Your task to perform on an android device: allow notifications from all sites in the chrome app Image 0: 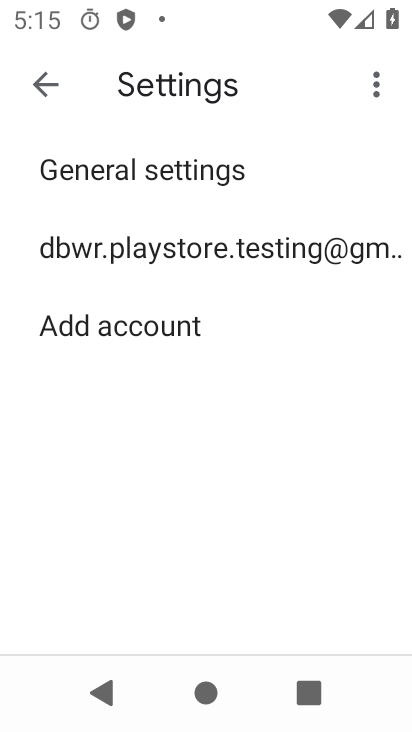
Step 0: press home button
Your task to perform on an android device: allow notifications from all sites in the chrome app Image 1: 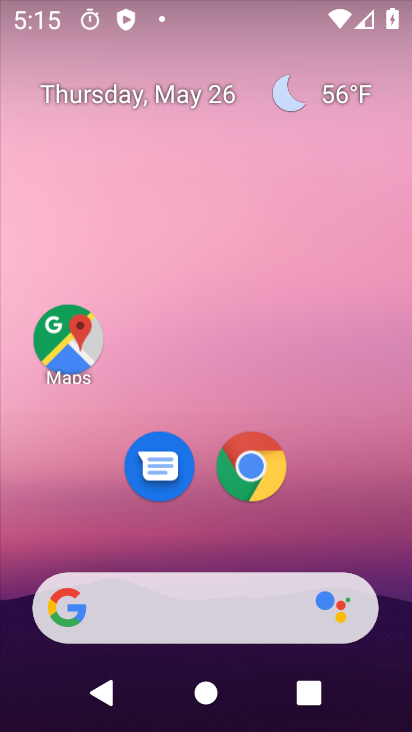
Step 1: drag from (310, 510) to (313, 85)
Your task to perform on an android device: allow notifications from all sites in the chrome app Image 2: 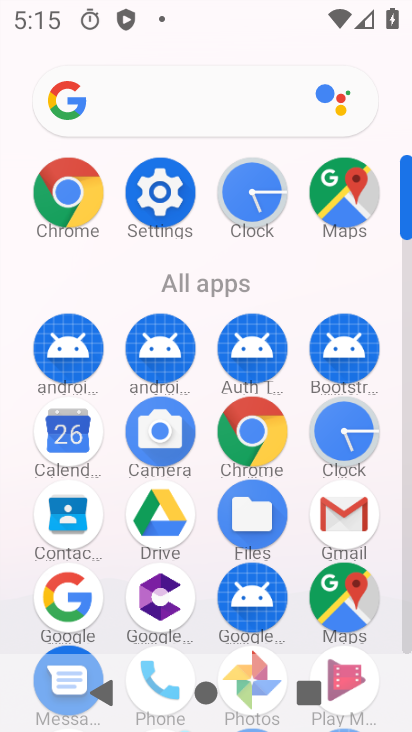
Step 2: click (248, 420)
Your task to perform on an android device: allow notifications from all sites in the chrome app Image 3: 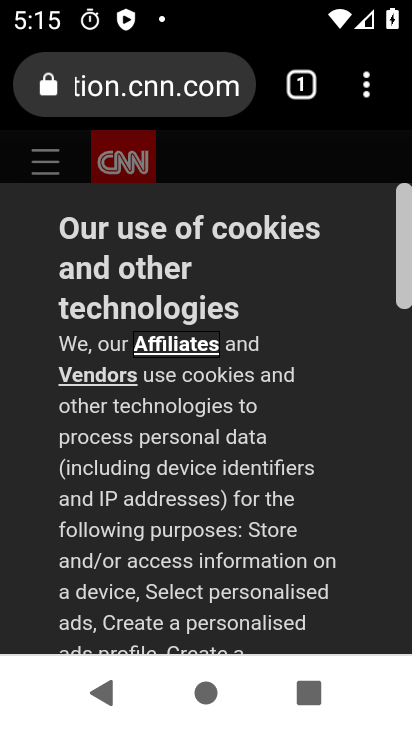
Step 3: drag from (366, 97) to (119, 524)
Your task to perform on an android device: allow notifications from all sites in the chrome app Image 4: 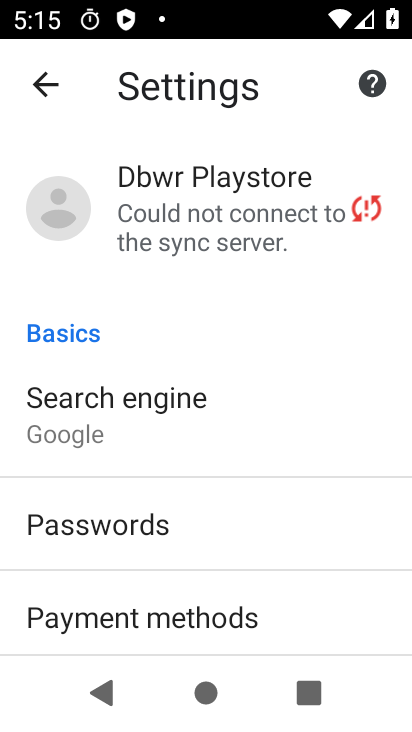
Step 4: drag from (305, 545) to (297, 252)
Your task to perform on an android device: allow notifications from all sites in the chrome app Image 5: 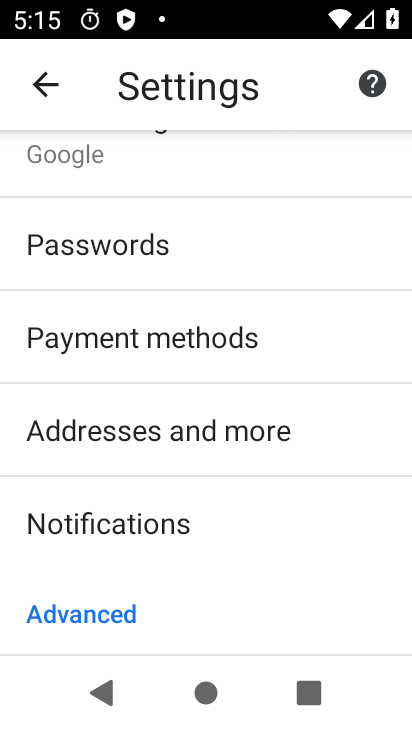
Step 5: drag from (280, 565) to (292, 266)
Your task to perform on an android device: allow notifications from all sites in the chrome app Image 6: 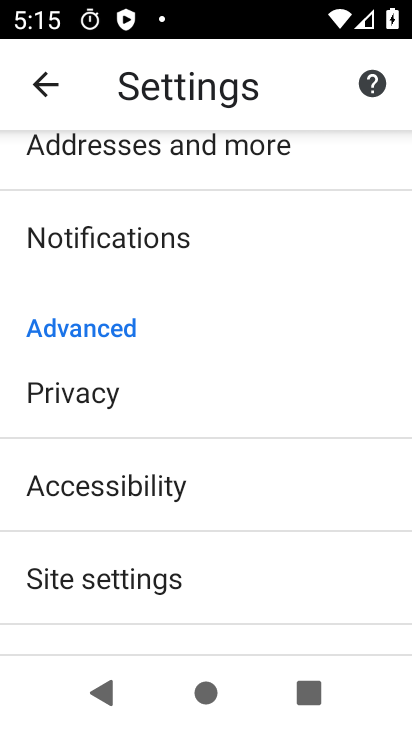
Step 6: click (126, 572)
Your task to perform on an android device: allow notifications from all sites in the chrome app Image 7: 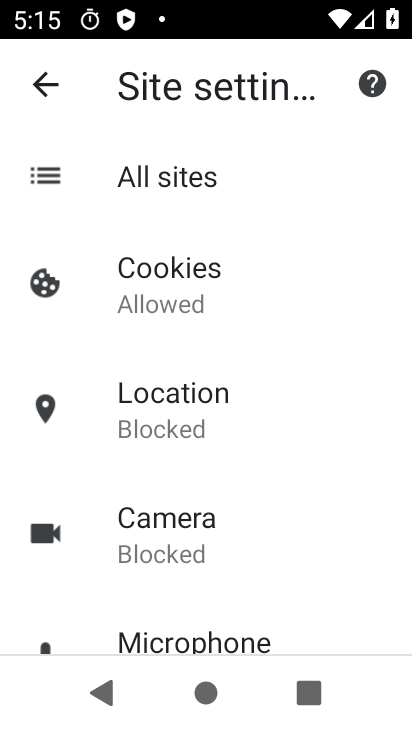
Step 7: click (175, 169)
Your task to perform on an android device: allow notifications from all sites in the chrome app Image 8: 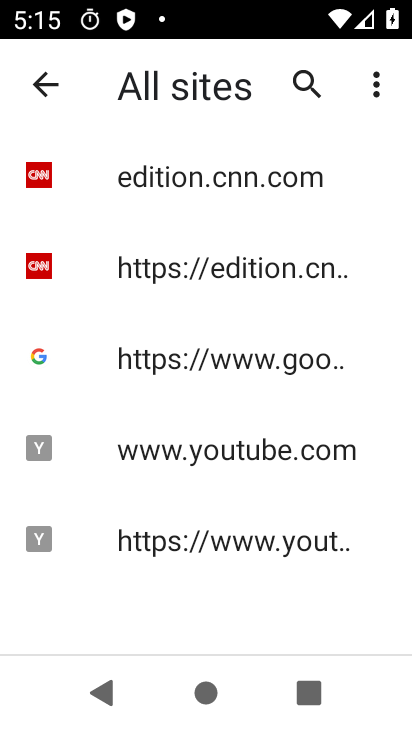
Step 8: click (269, 174)
Your task to perform on an android device: allow notifications from all sites in the chrome app Image 9: 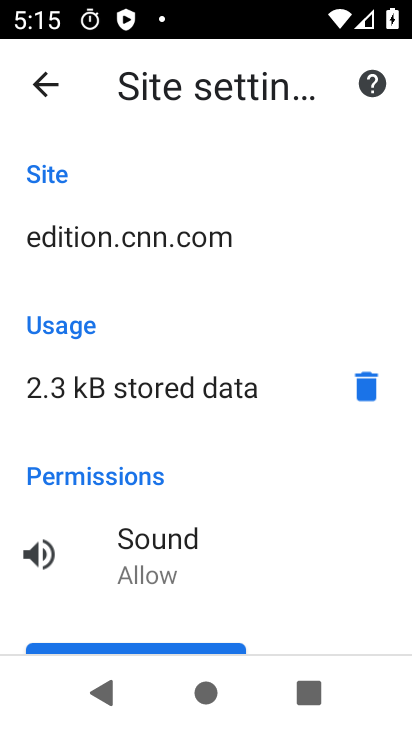
Step 9: drag from (261, 502) to (300, 274)
Your task to perform on an android device: allow notifications from all sites in the chrome app Image 10: 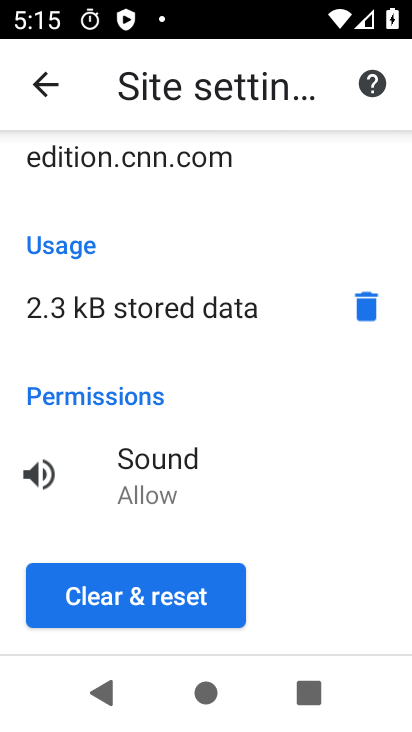
Step 10: click (44, 78)
Your task to perform on an android device: allow notifications from all sites in the chrome app Image 11: 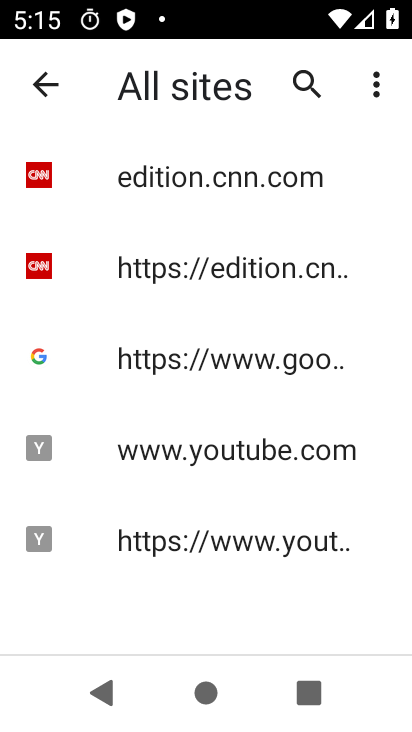
Step 11: click (242, 361)
Your task to perform on an android device: allow notifications from all sites in the chrome app Image 12: 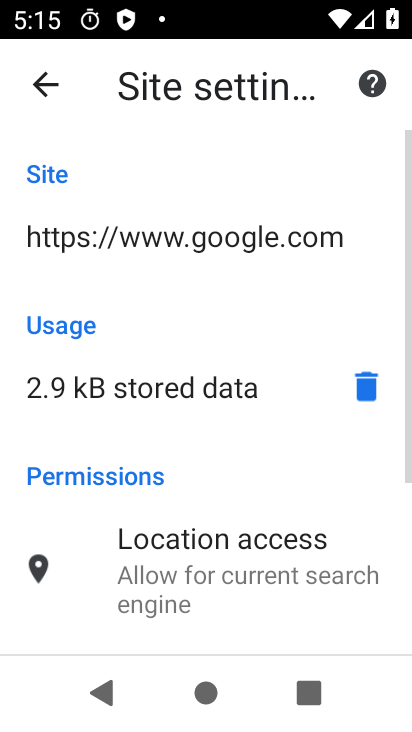
Step 12: drag from (283, 476) to (271, 213)
Your task to perform on an android device: allow notifications from all sites in the chrome app Image 13: 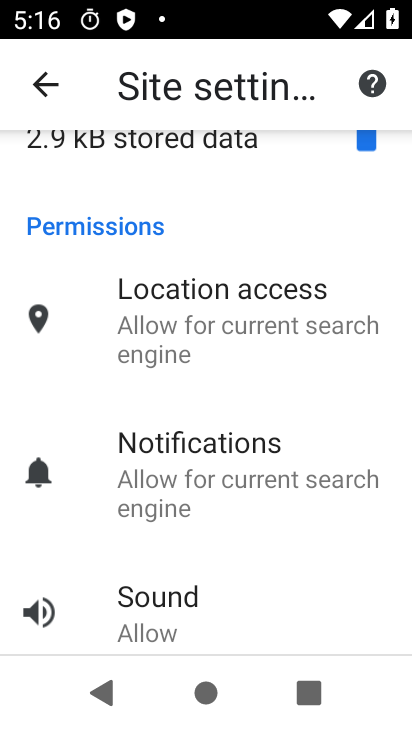
Step 13: click (223, 462)
Your task to perform on an android device: allow notifications from all sites in the chrome app Image 14: 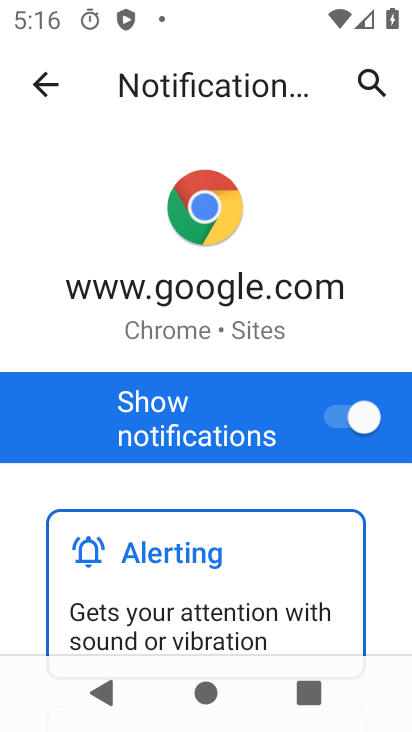
Step 14: task complete